Your task to perform on an android device: Go to Amazon Image 0: 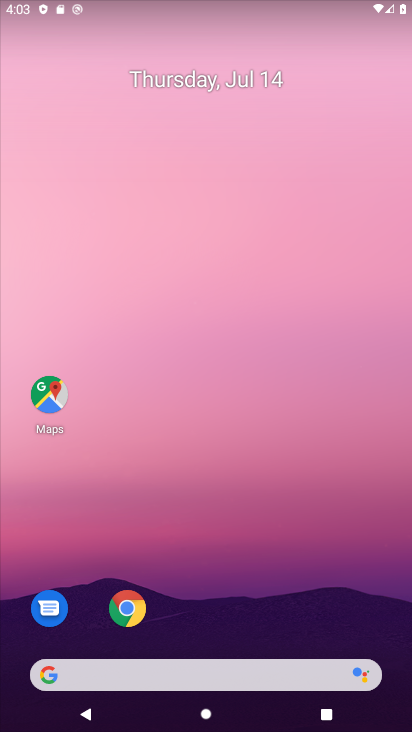
Step 0: click (142, 623)
Your task to perform on an android device: Go to Amazon Image 1: 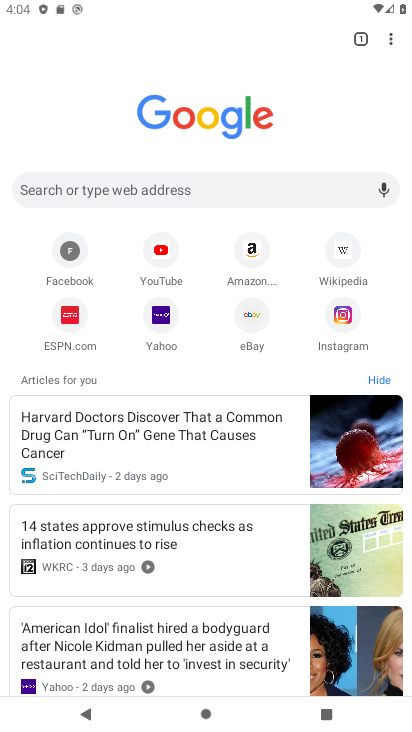
Step 1: click (247, 258)
Your task to perform on an android device: Go to Amazon Image 2: 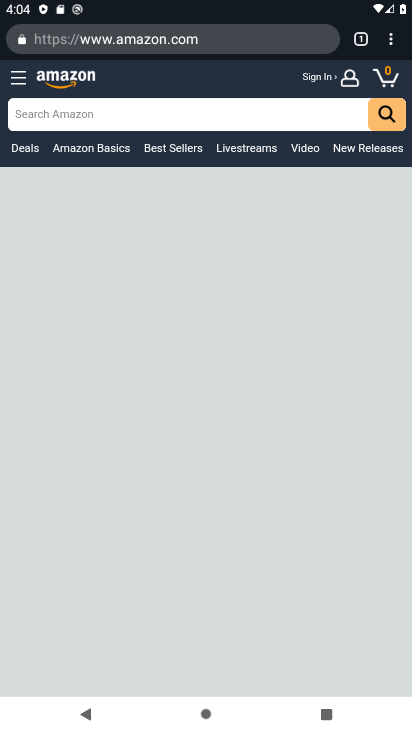
Step 2: task complete